Your task to perform on an android device: Open battery settings Image 0: 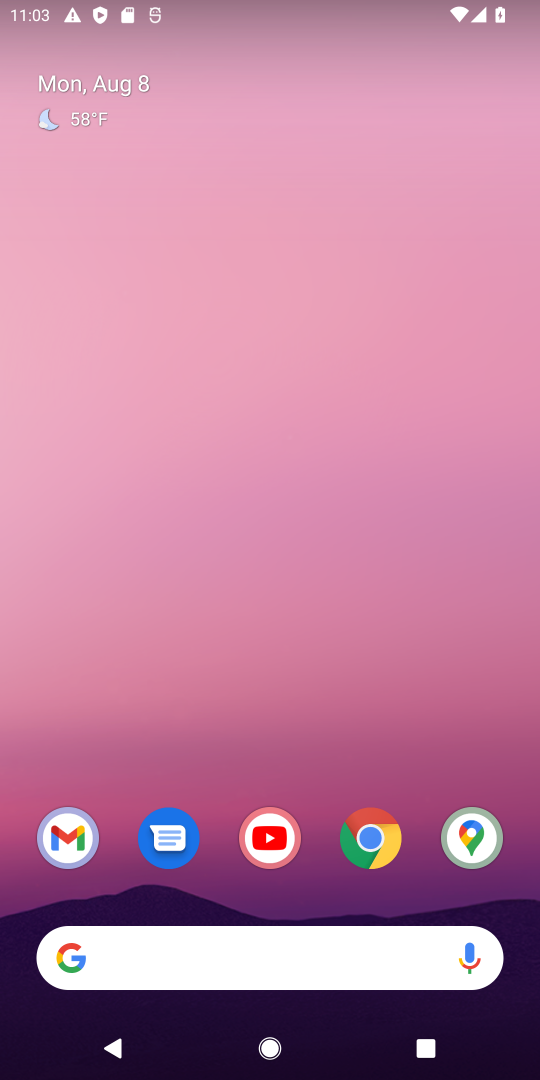
Step 0: press home button
Your task to perform on an android device: Open battery settings Image 1: 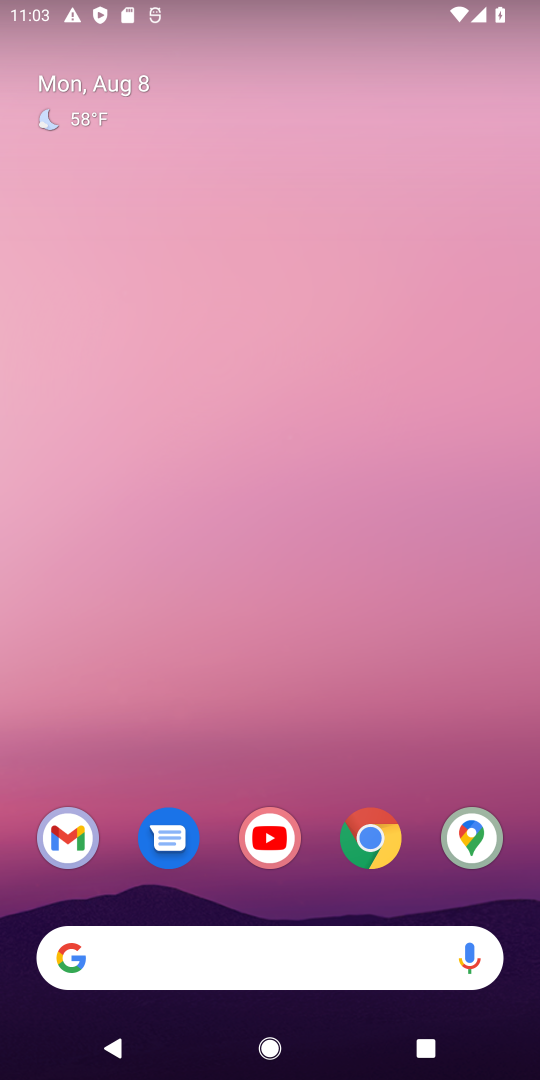
Step 1: drag from (224, 882) to (278, 187)
Your task to perform on an android device: Open battery settings Image 2: 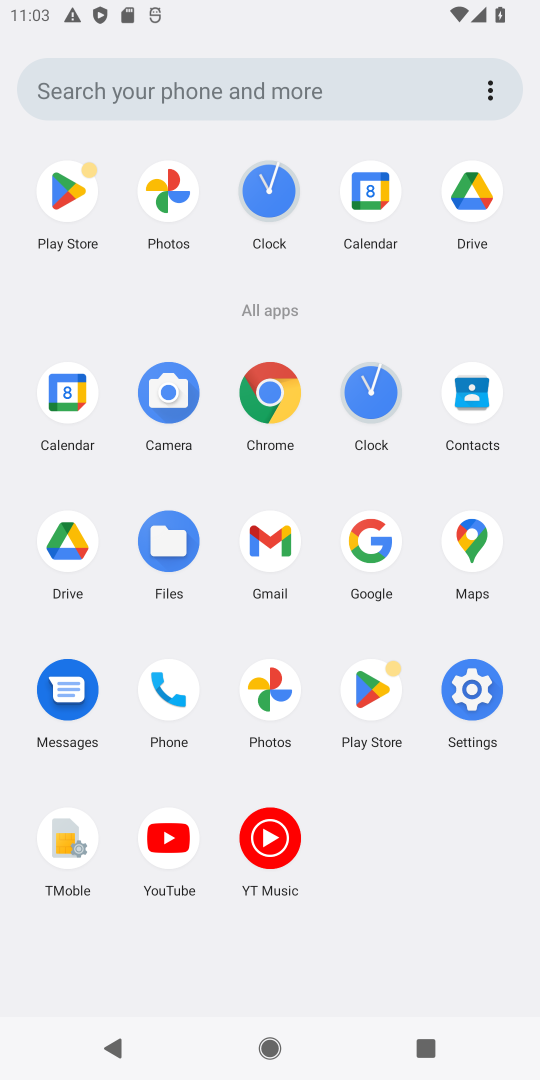
Step 2: click (483, 692)
Your task to perform on an android device: Open battery settings Image 3: 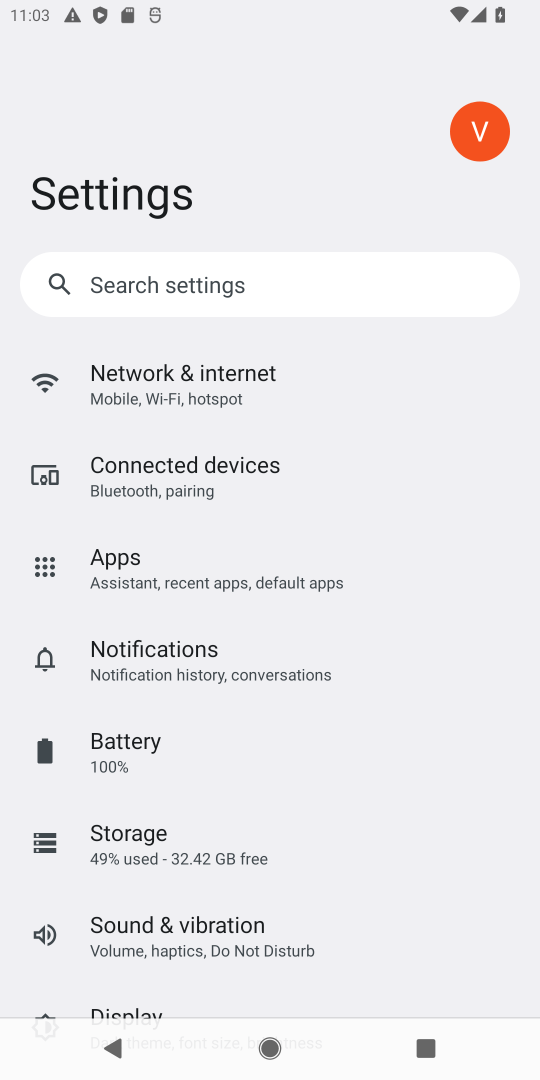
Step 3: click (95, 758)
Your task to perform on an android device: Open battery settings Image 4: 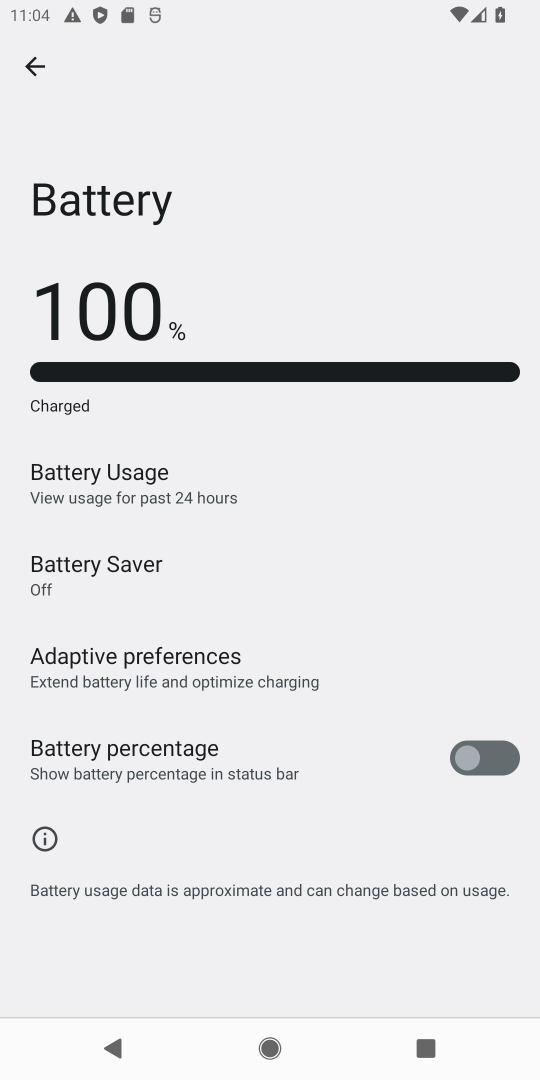
Step 4: task complete